Your task to perform on an android device: Is it going to rain this weekend? Image 0: 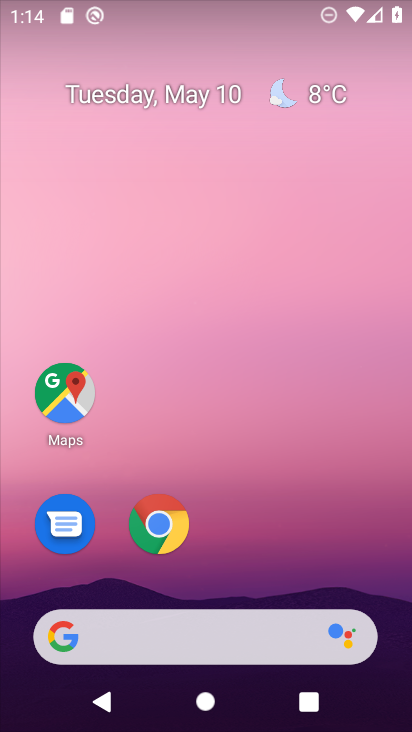
Step 0: click (312, 95)
Your task to perform on an android device: Is it going to rain this weekend? Image 1: 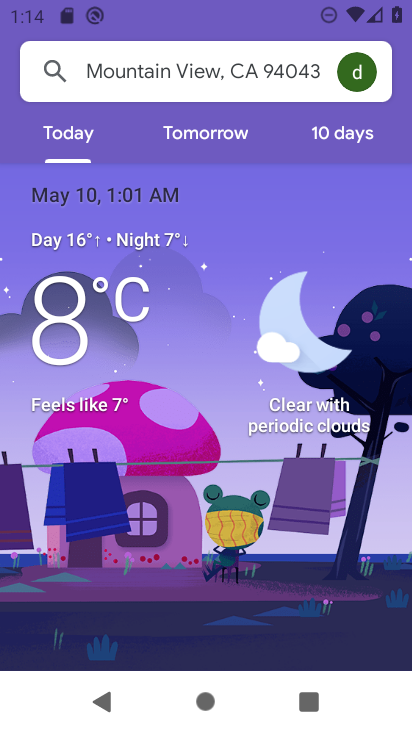
Step 1: click (337, 135)
Your task to perform on an android device: Is it going to rain this weekend? Image 2: 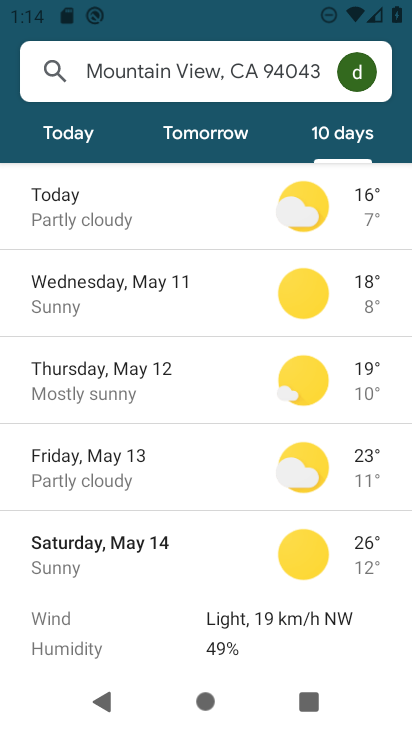
Step 2: click (79, 542)
Your task to perform on an android device: Is it going to rain this weekend? Image 3: 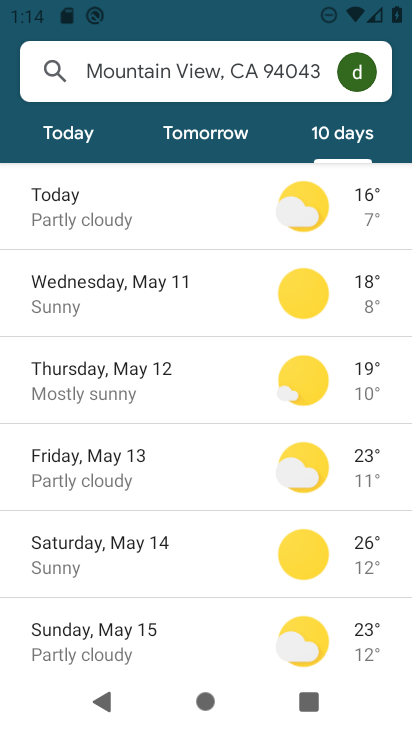
Step 3: click (120, 538)
Your task to perform on an android device: Is it going to rain this weekend? Image 4: 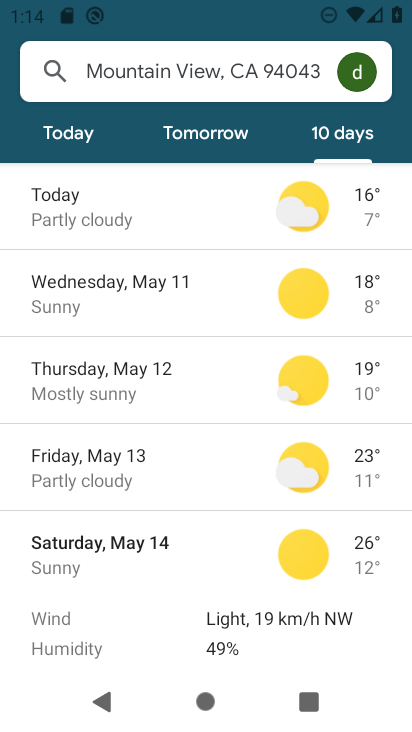
Step 4: task complete